Your task to perform on an android device: Go to accessibility settings Image 0: 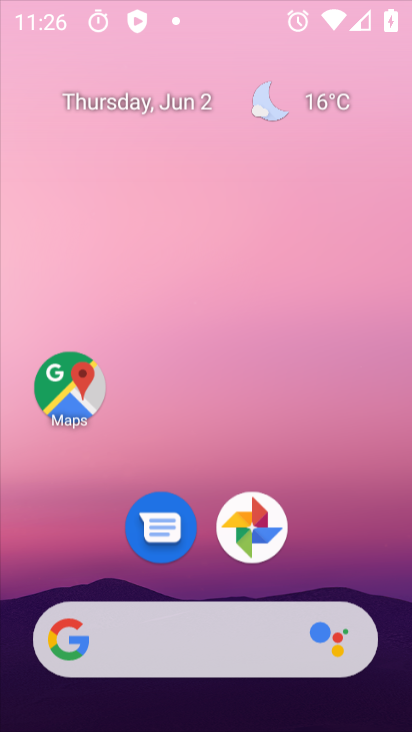
Step 0: drag from (42, 96) to (109, 0)
Your task to perform on an android device: Go to accessibility settings Image 1: 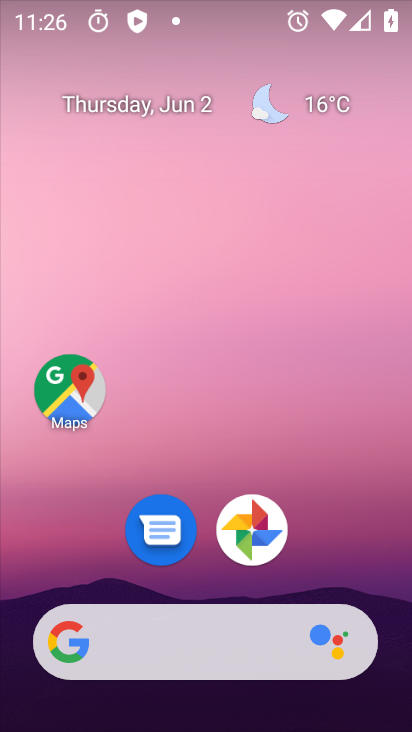
Step 1: click (289, 312)
Your task to perform on an android device: Go to accessibility settings Image 2: 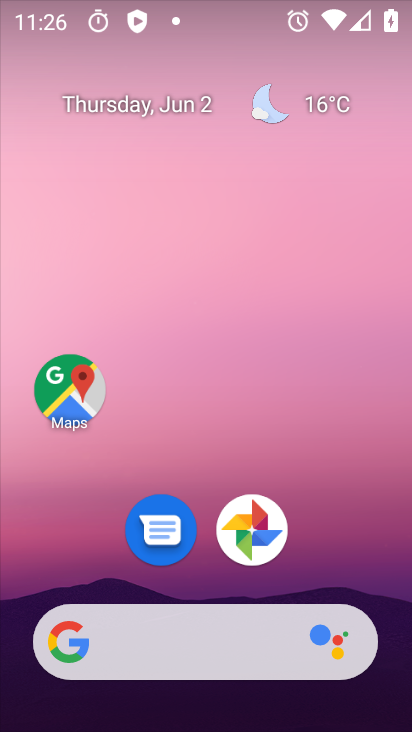
Step 2: drag from (244, 697) to (188, 104)
Your task to perform on an android device: Go to accessibility settings Image 3: 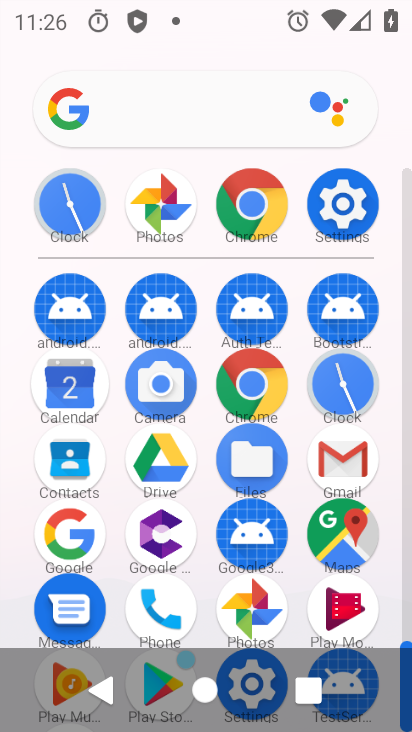
Step 3: click (340, 215)
Your task to perform on an android device: Go to accessibility settings Image 4: 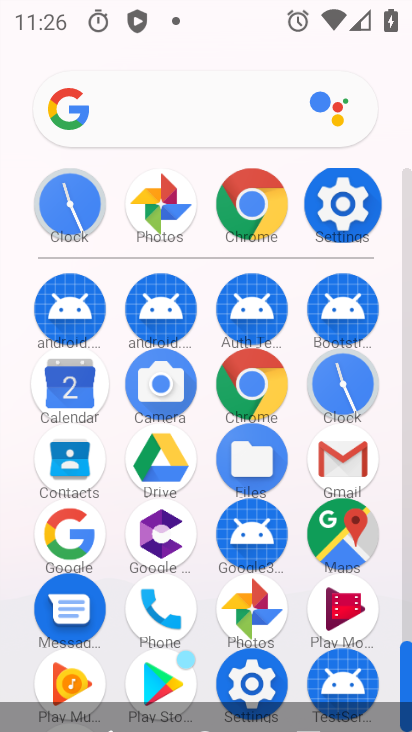
Step 4: click (341, 215)
Your task to perform on an android device: Go to accessibility settings Image 5: 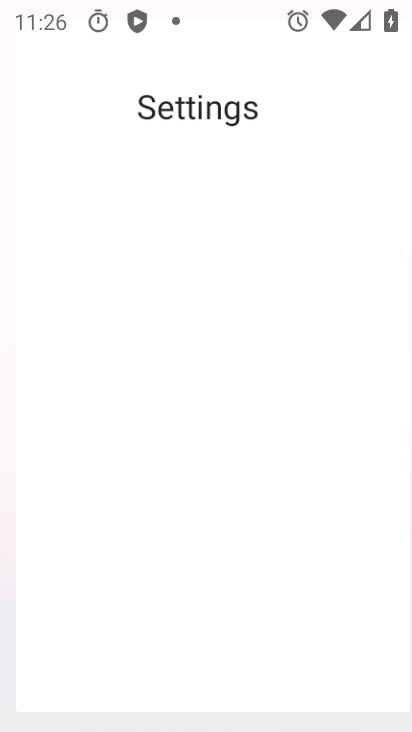
Step 5: click (343, 216)
Your task to perform on an android device: Go to accessibility settings Image 6: 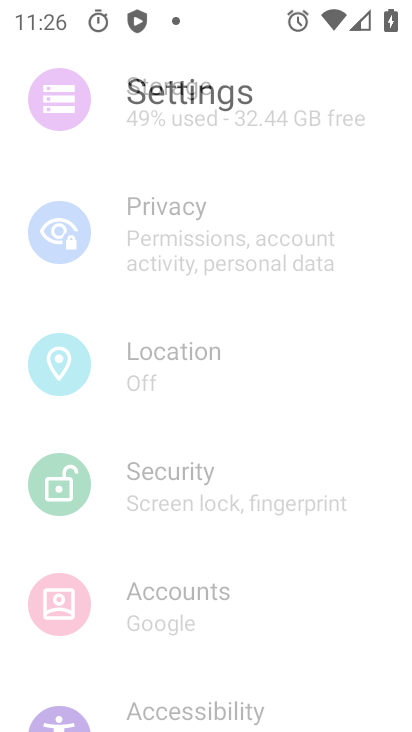
Step 6: click (343, 216)
Your task to perform on an android device: Go to accessibility settings Image 7: 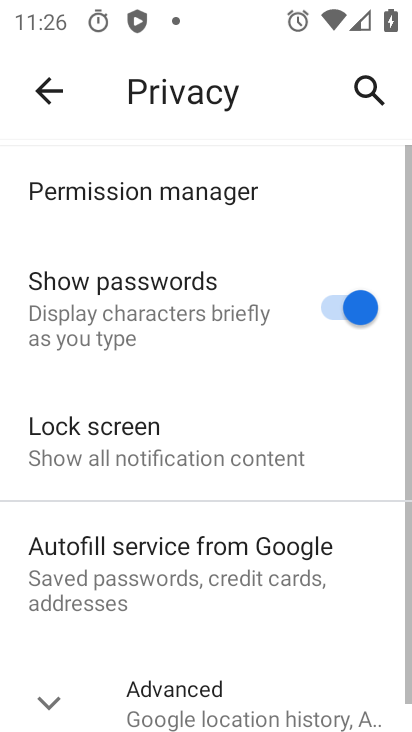
Step 7: click (210, 560)
Your task to perform on an android device: Go to accessibility settings Image 8: 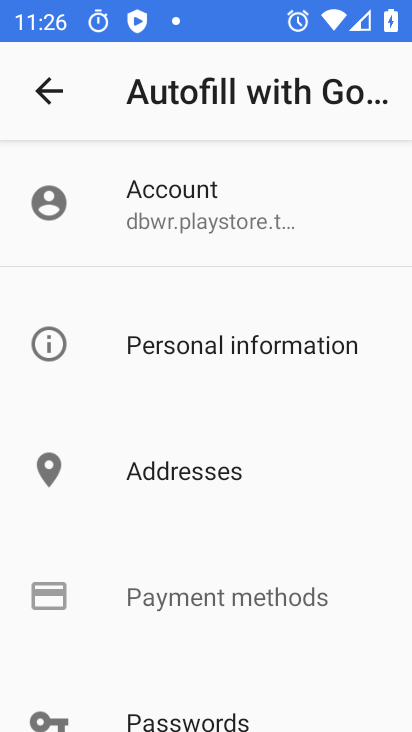
Step 8: click (48, 108)
Your task to perform on an android device: Go to accessibility settings Image 9: 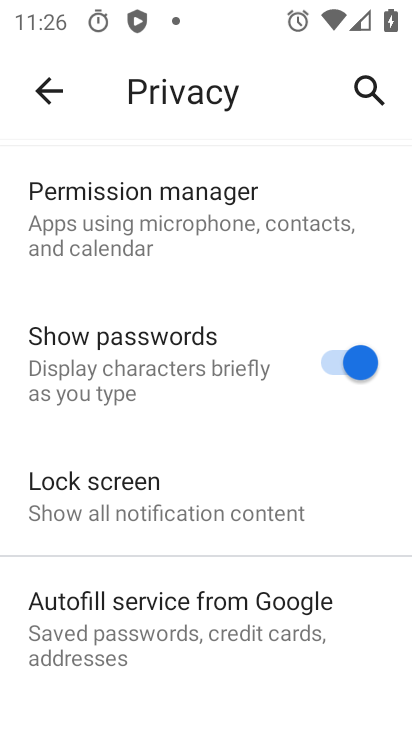
Step 9: click (40, 88)
Your task to perform on an android device: Go to accessibility settings Image 10: 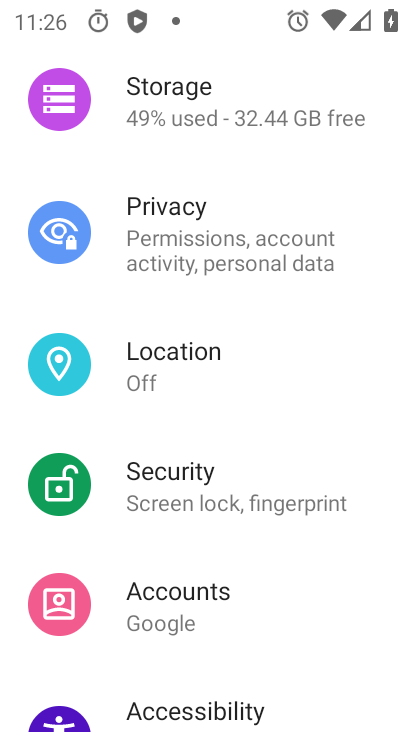
Step 10: drag from (200, 596) to (165, 177)
Your task to perform on an android device: Go to accessibility settings Image 11: 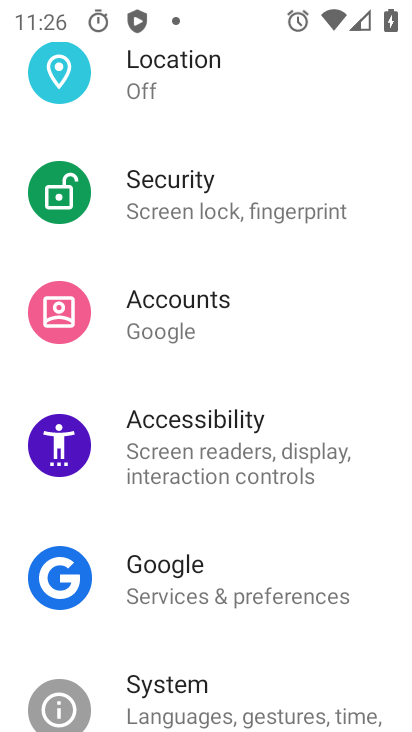
Step 11: drag from (203, 510) to (203, 226)
Your task to perform on an android device: Go to accessibility settings Image 12: 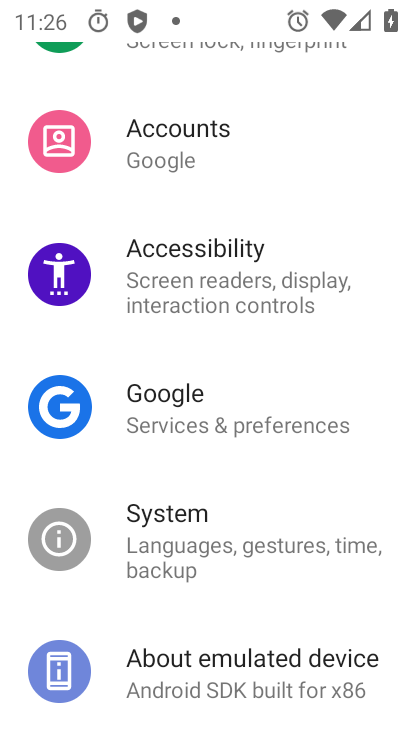
Step 12: click (220, 300)
Your task to perform on an android device: Go to accessibility settings Image 13: 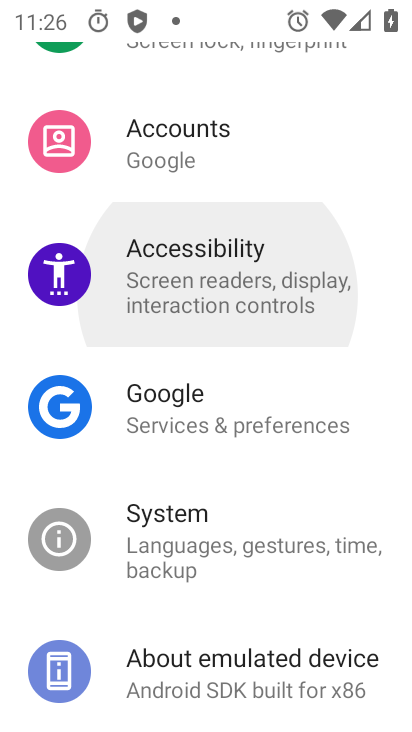
Step 13: click (220, 300)
Your task to perform on an android device: Go to accessibility settings Image 14: 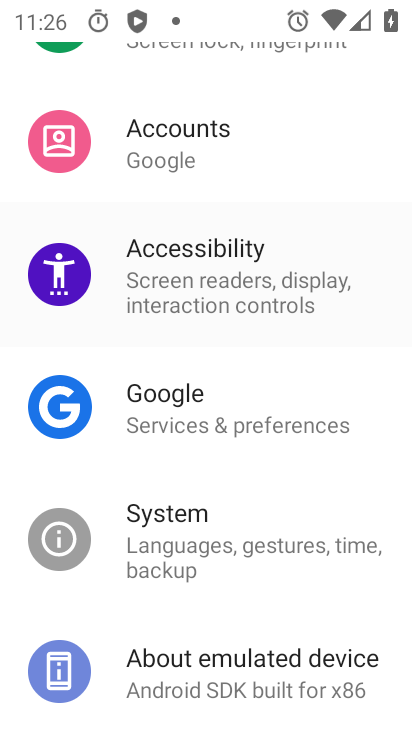
Step 14: click (220, 300)
Your task to perform on an android device: Go to accessibility settings Image 15: 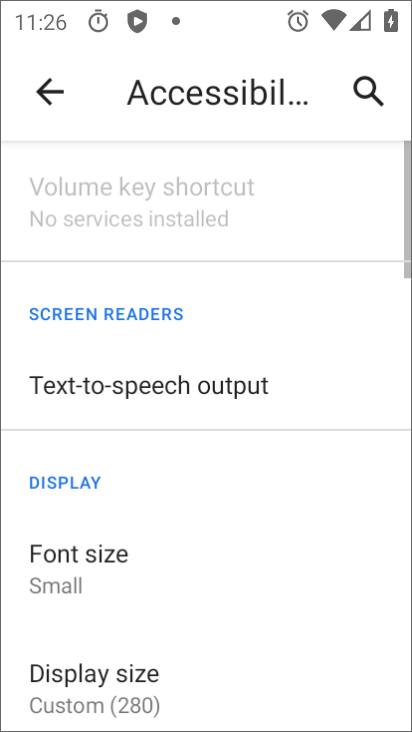
Step 15: click (220, 300)
Your task to perform on an android device: Go to accessibility settings Image 16: 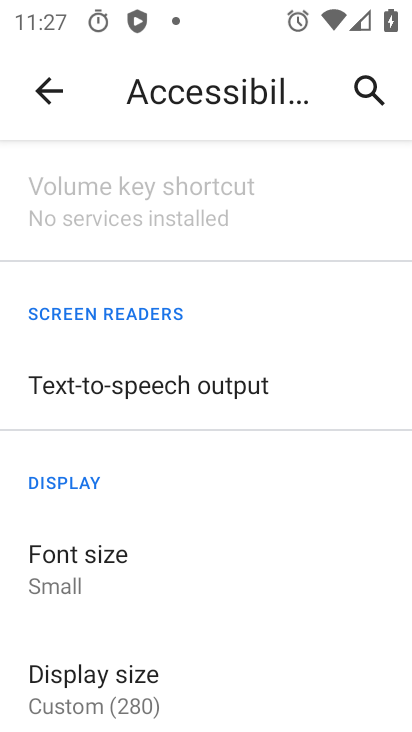
Step 16: task complete